Your task to perform on an android device: delete browsing data in the chrome app Image 0: 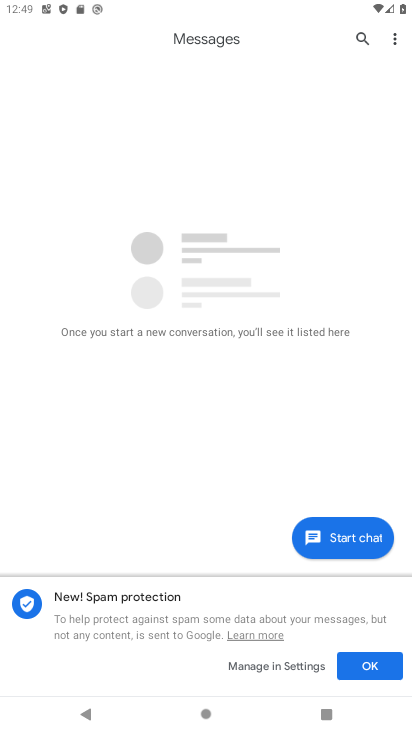
Step 0: press home button
Your task to perform on an android device: delete browsing data in the chrome app Image 1: 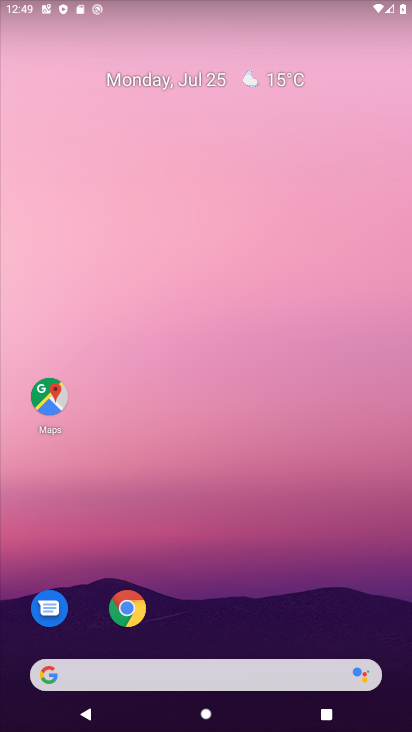
Step 1: drag from (215, 508) to (252, 136)
Your task to perform on an android device: delete browsing data in the chrome app Image 2: 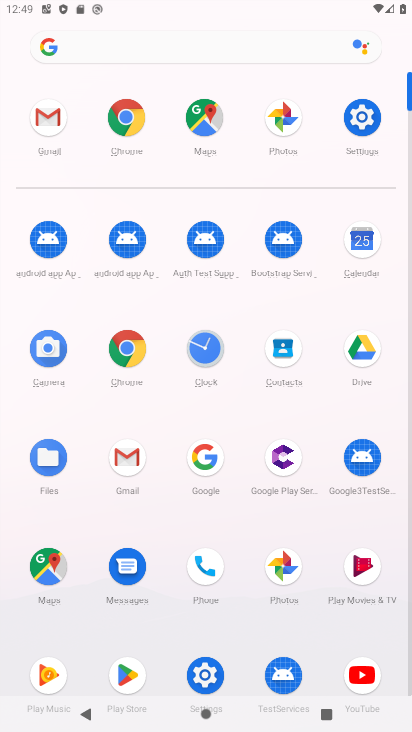
Step 2: click (132, 361)
Your task to perform on an android device: delete browsing data in the chrome app Image 3: 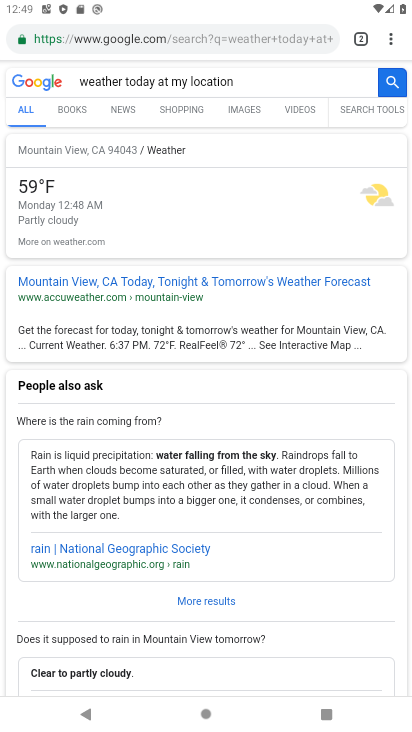
Step 3: click (386, 34)
Your task to perform on an android device: delete browsing data in the chrome app Image 4: 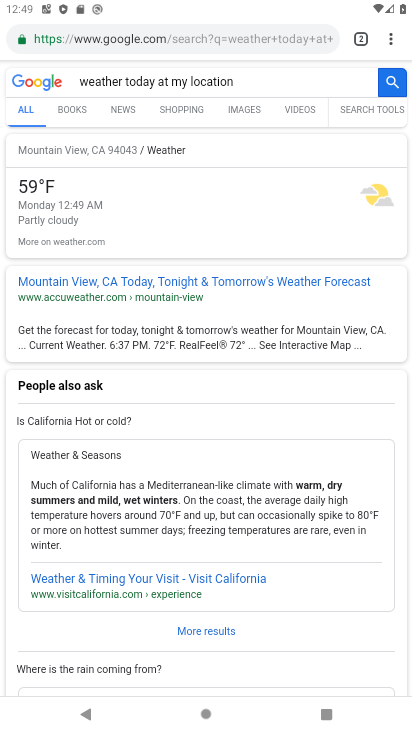
Step 4: click (391, 43)
Your task to perform on an android device: delete browsing data in the chrome app Image 5: 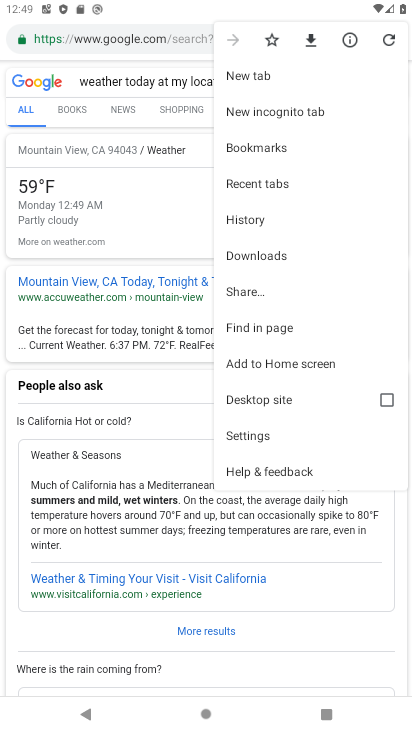
Step 5: click (266, 437)
Your task to perform on an android device: delete browsing data in the chrome app Image 6: 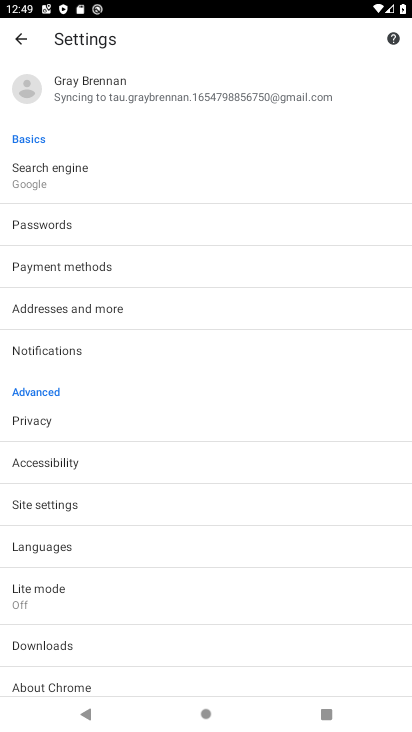
Step 6: drag from (135, 614) to (157, 350)
Your task to perform on an android device: delete browsing data in the chrome app Image 7: 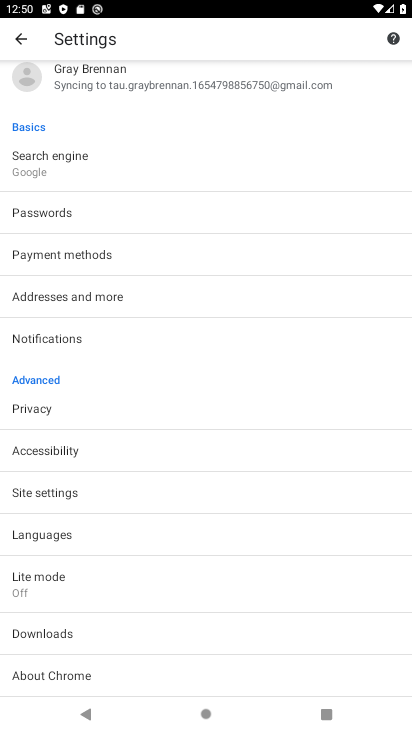
Step 7: press back button
Your task to perform on an android device: delete browsing data in the chrome app Image 8: 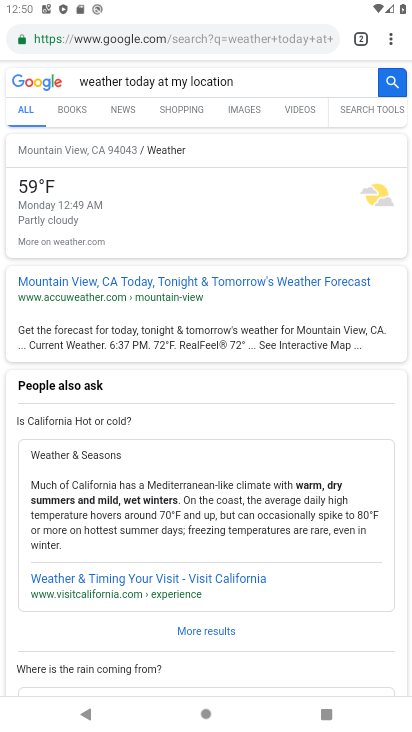
Step 8: click (389, 40)
Your task to perform on an android device: delete browsing data in the chrome app Image 9: 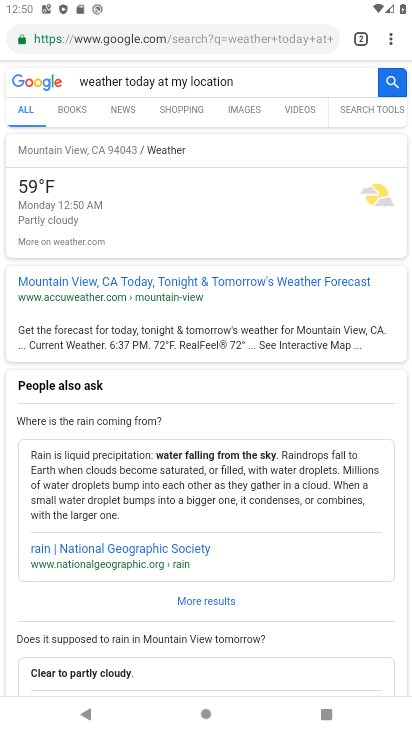
Step 9: click (390, 40)
Your task to perform on an android device: delete browsing data in the chrome app Image 10: 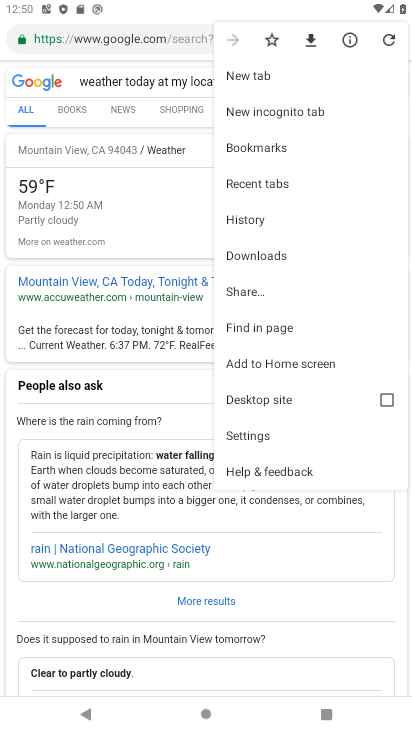
Step 10: click (266, 215)
Your task to perform on an android device: delete browsing data in the chrome app Image 11: 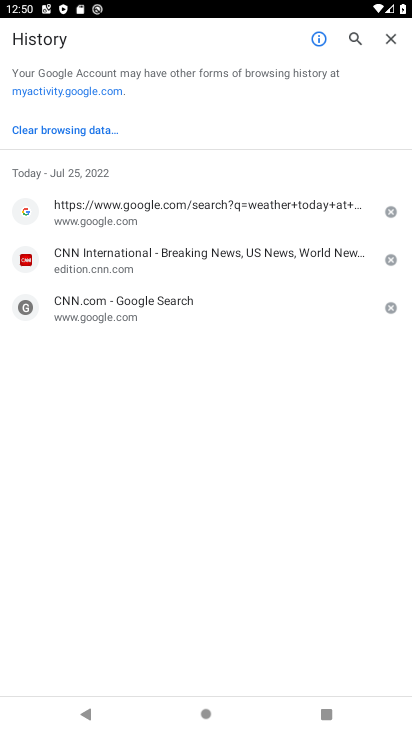
Step 11: click (104, 125)
Your task to perform on an android device: delete browsing data in the chrome app Image 12: 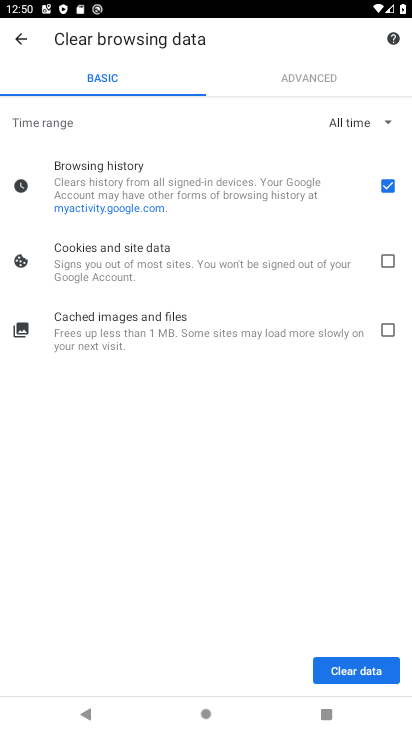
Step 12: click (356, 678)
Your task to perform on an android device: delete browsing data in the chrome app Image 13: 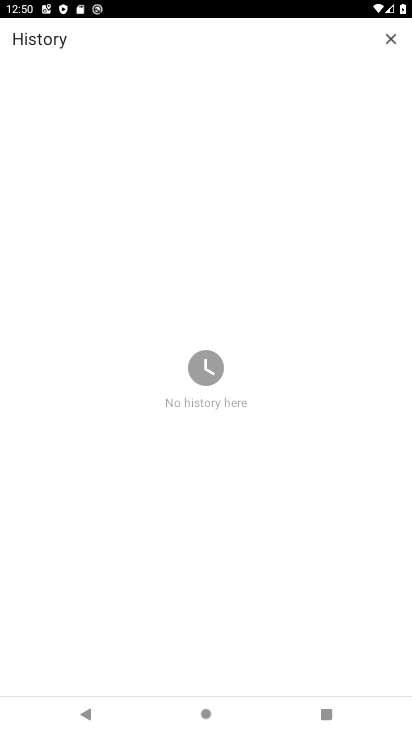
Step 13: task complete